Your task to perform on an android device: toggle show notifications on the lock screen Image 0: 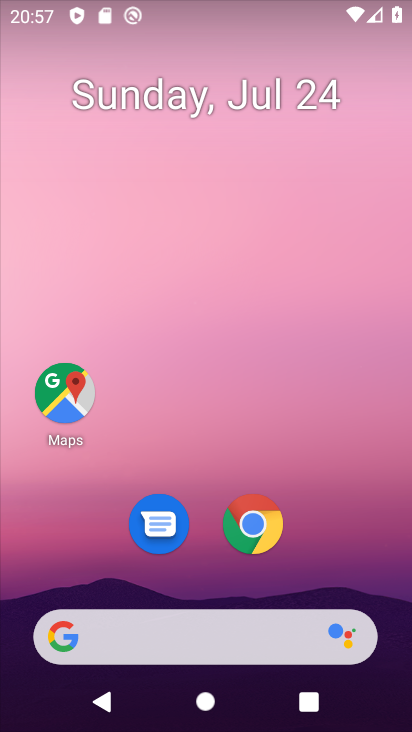
Step 0: press home button
Your task to perform on an android device: toggle show notifications on the lock screen Image 1: 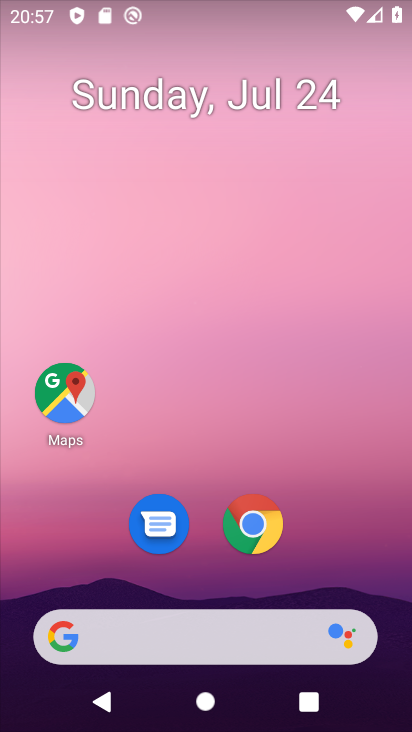
Step 1: drag from (182, 619) to (239, 156)
Your task to perform on an android device: toggle show notifications on the lock screen Image 2: 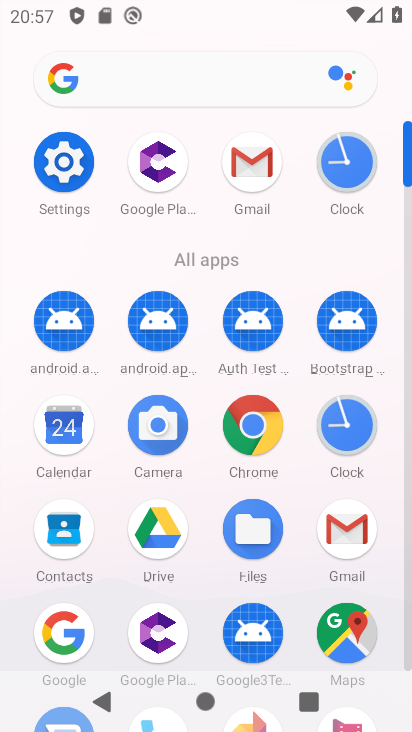
Step 2: click (72, 175)
Your task to perform on an android device: toggle show notifications on the lock screen Image 3: 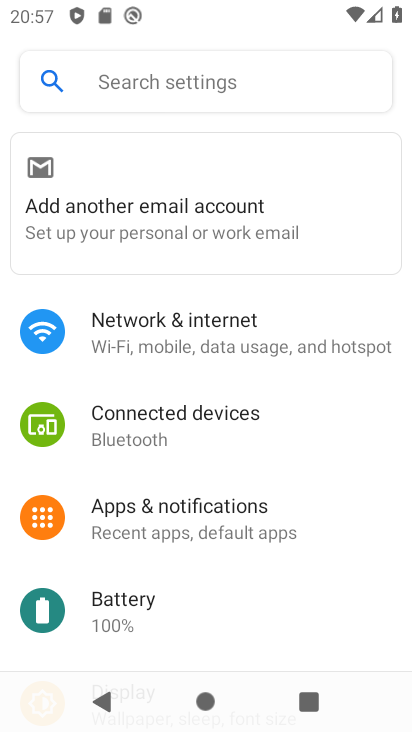
Step 3: drag from (198, 612) to (314, 80)
Your task to perform on an android device: toggle show notifications on the lock screen Image 4: 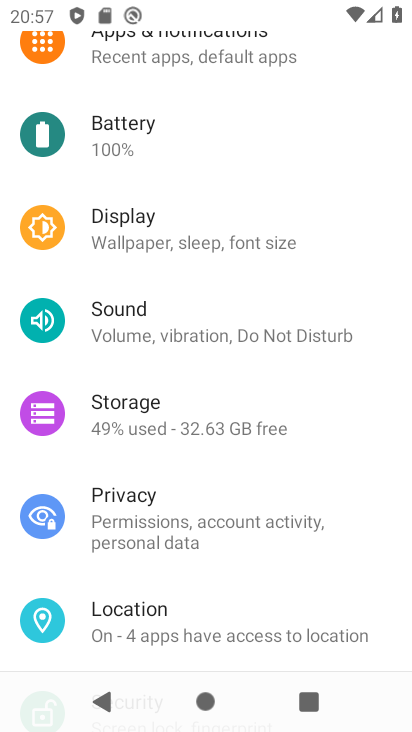
Step 4: click (208, 586)
Your task to perform on an android device: toggle show notifications on the lock screen Image 5: 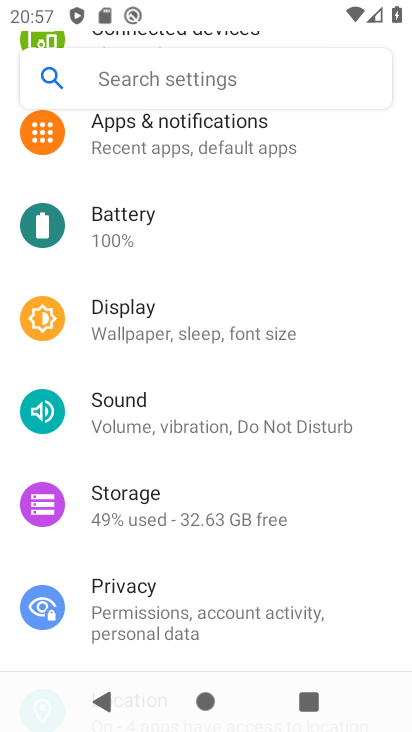
Step 5: click (191, 123)
Your task to perform on an android device: toggle show notifications on the lock screen Image 6: 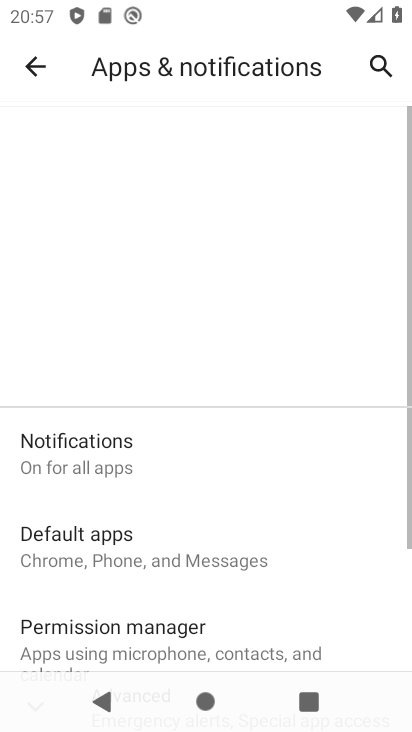
Step 6: click (92, 462)
Your task to perform on an android device: toggle show notifications on the lock screen Image 7: 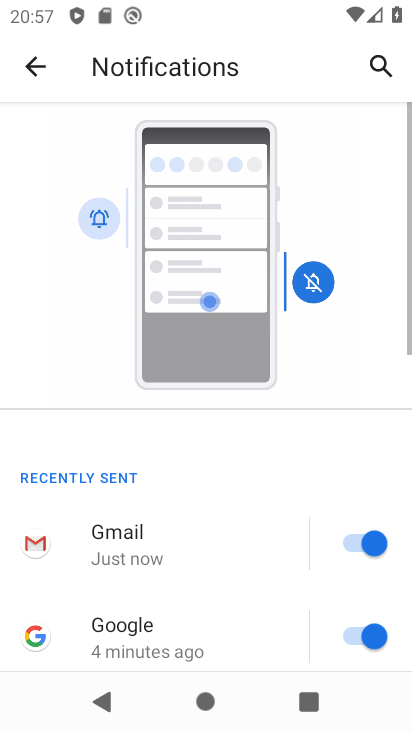
Step 7: drag from (210, 633) to (298, 106)
Your task to perform on an android device: toggle show notifications on the lock screen Image 8: 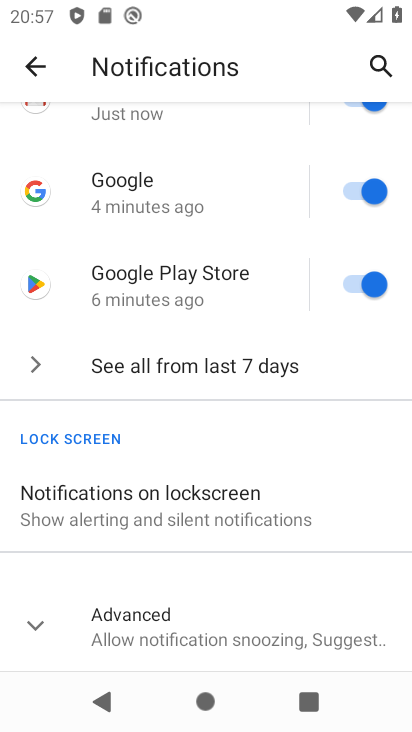
Step 8: click (209, 511)
Your task to perform on an android device: toggle show notifications on the lock screen Image 9: 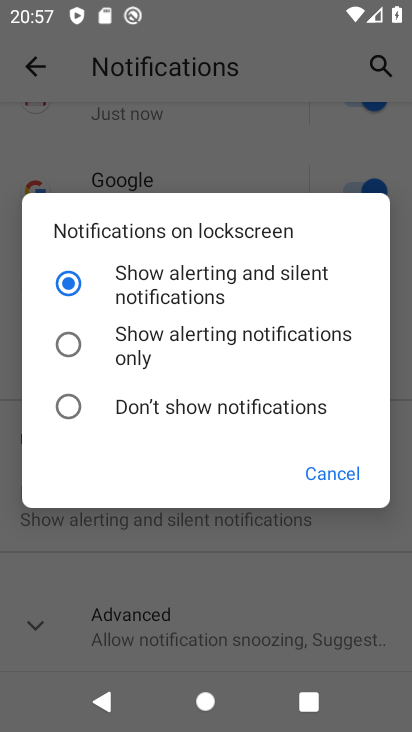
Step 9: click (69, 402)
Your task to perform on an android device: toggle show notifications on the lock screen Image 10: 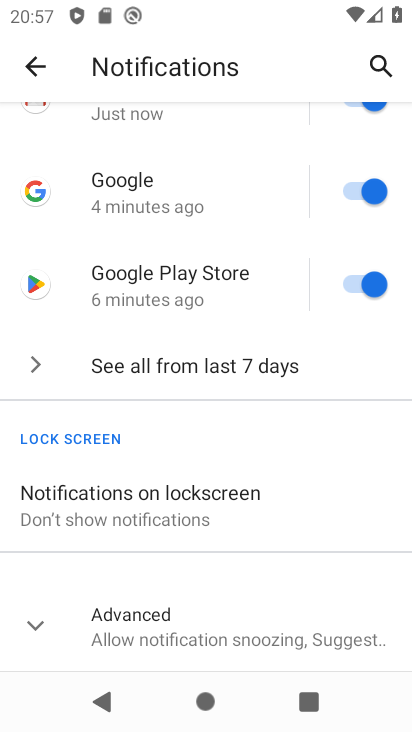
Step 10: task complete